Your task to perform on an android device: install app "Google Photos" Image 0: 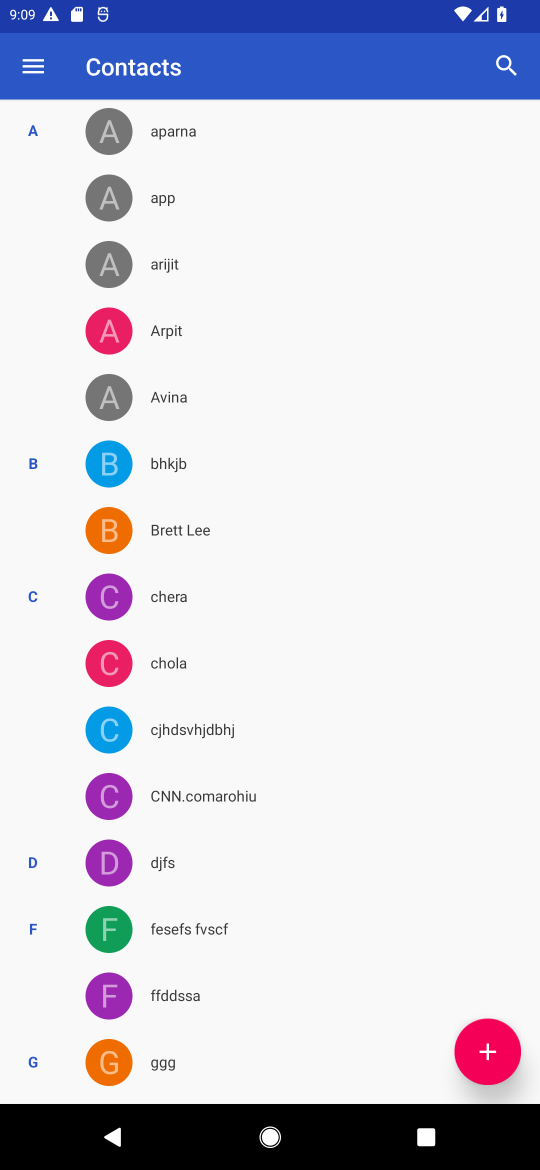
Step 0: press home button
Your task to perform on an android device: install app "Google Photos" Image 1: 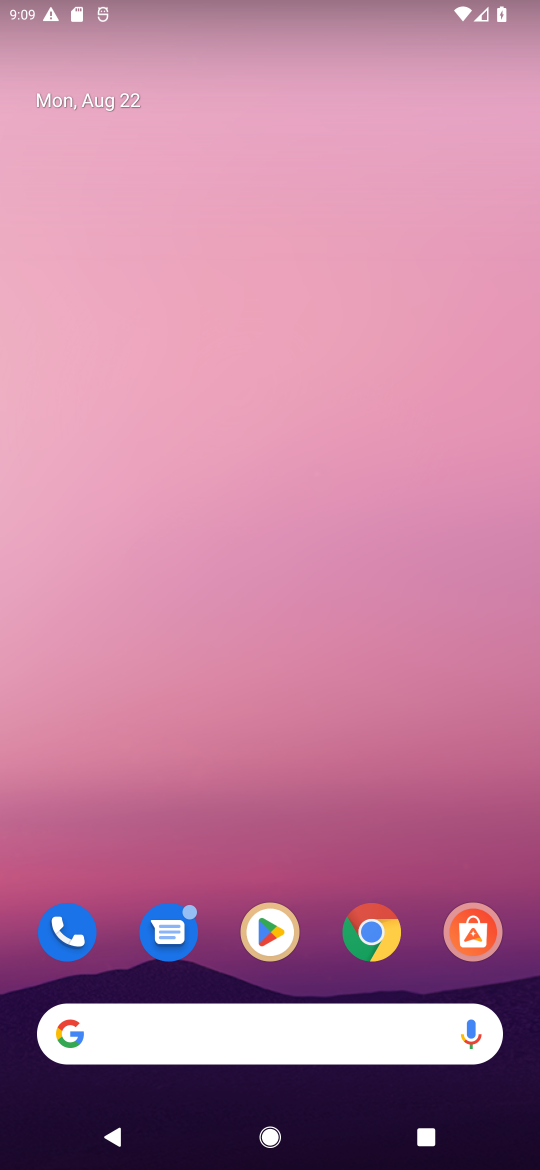
Step 1: drag from (327, 973) to (321, 227)
Your task to perform on an android device: install app "Google Photos" Image 2: 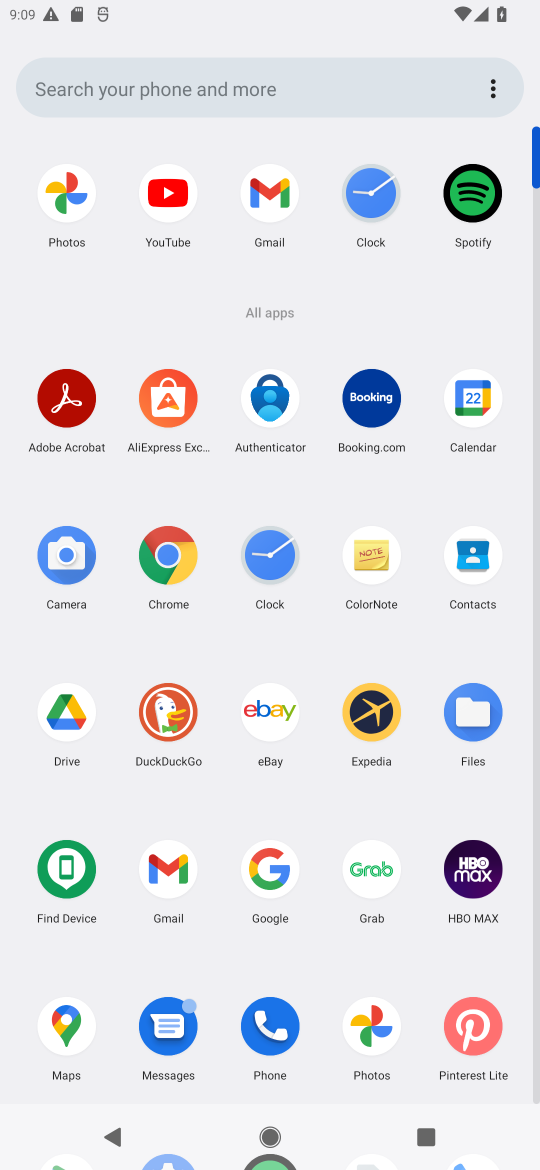
Step 2: click (83, 214)
Your task to perform on an android device: install app "Google Photos" Image 3: 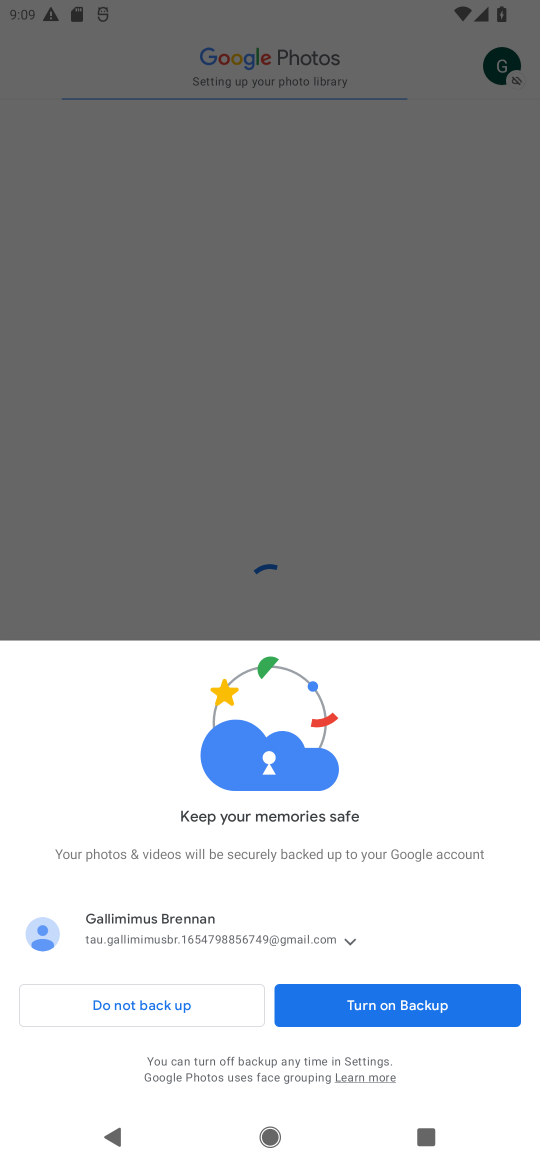
Step 3: click (191, 1003)
Your task to perform on an android device: install app "Google Photos" Image 4: 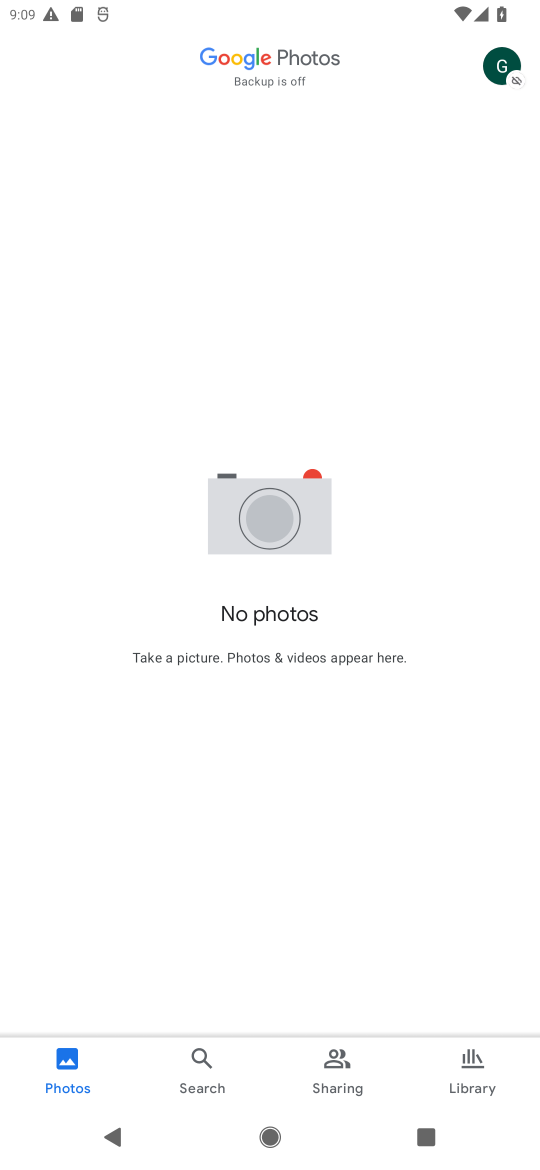
Step 4: task complete